Your task to perform on an android device: Open internet settings Image 0: 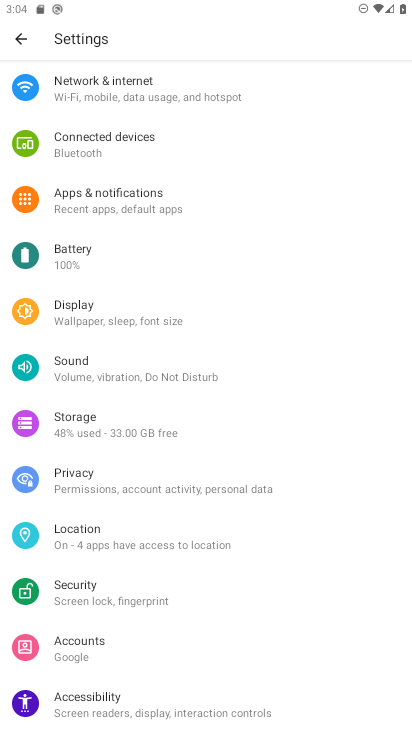
Step 0: click (119, 102)
Your task to perform on an android device: Open internet settings Image 1: 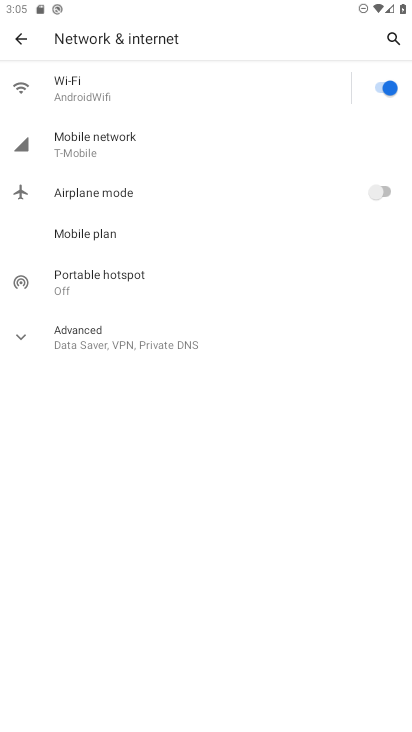
Step 1: task complete